Your task to perform on an android device: star an email in the gmail app Image 0: 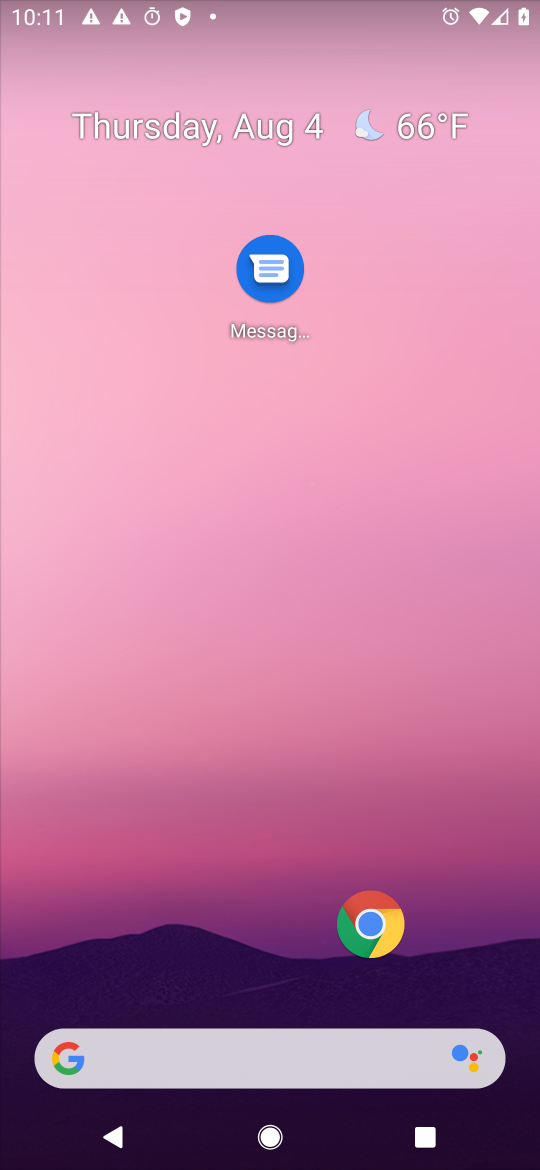
Step 0: drag from (313, 912) to (411, 50)
Your task to perform on an android device: star an email in the gmail app Image 1: 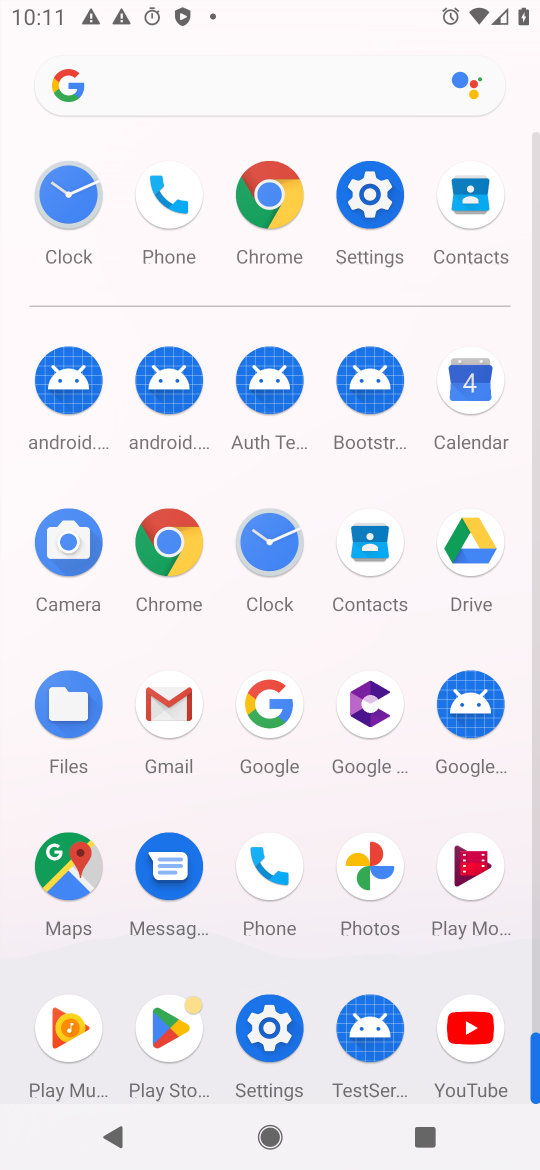
Step 1: click (181, 693)
Your task to perform on an android device: star an email in the gmail app Image 2: 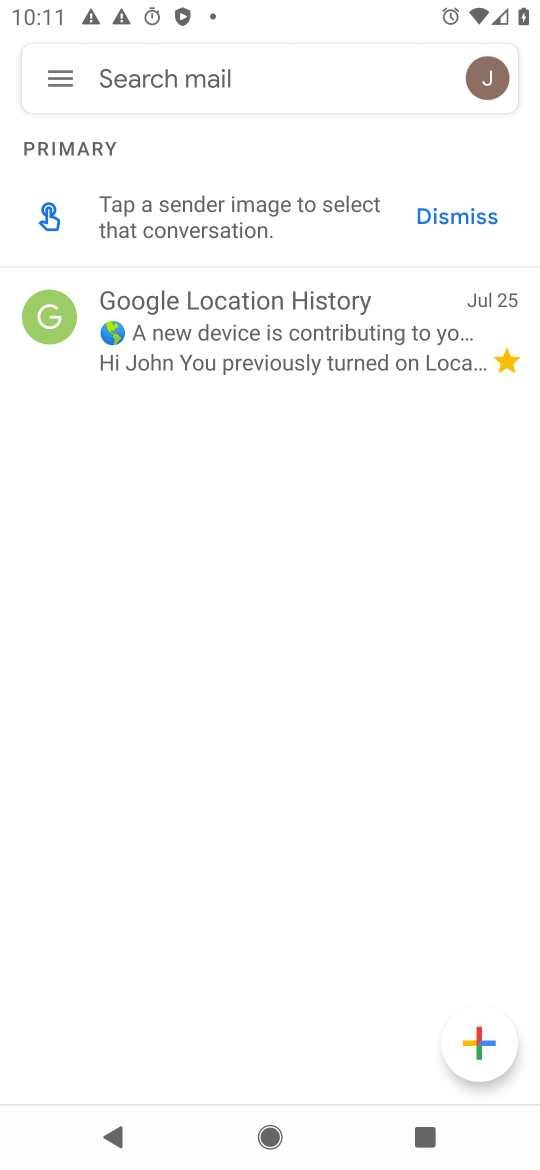
Step 2: drag from (236, 783) to (273, 457)
Your task to perform on an android device: star an email in the gmail app Image 3: 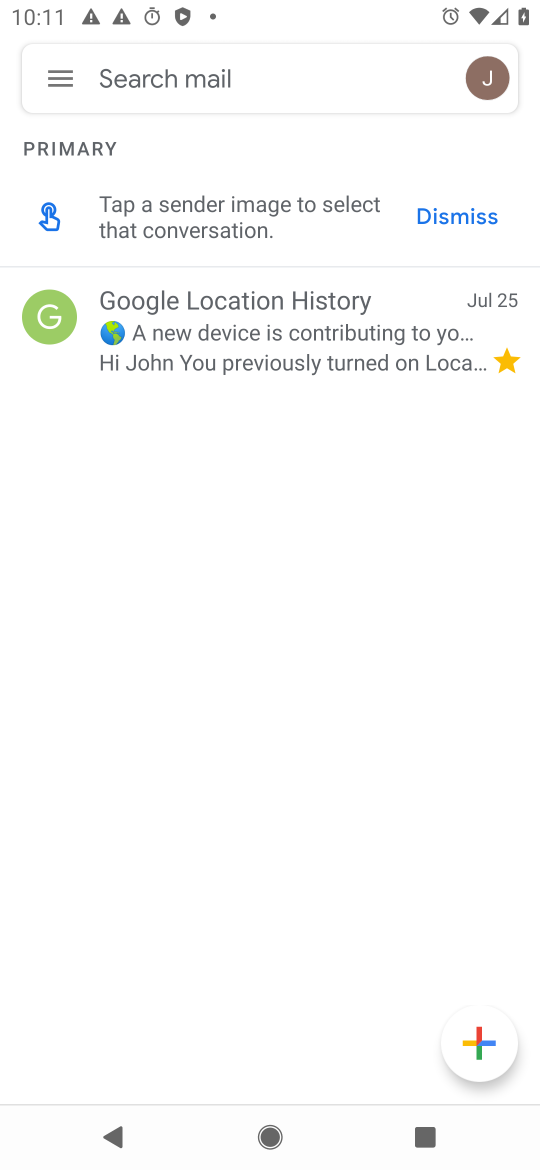
Step 3: press home button
Your task to perform on an android device: star an email in the gmail app Image 4: 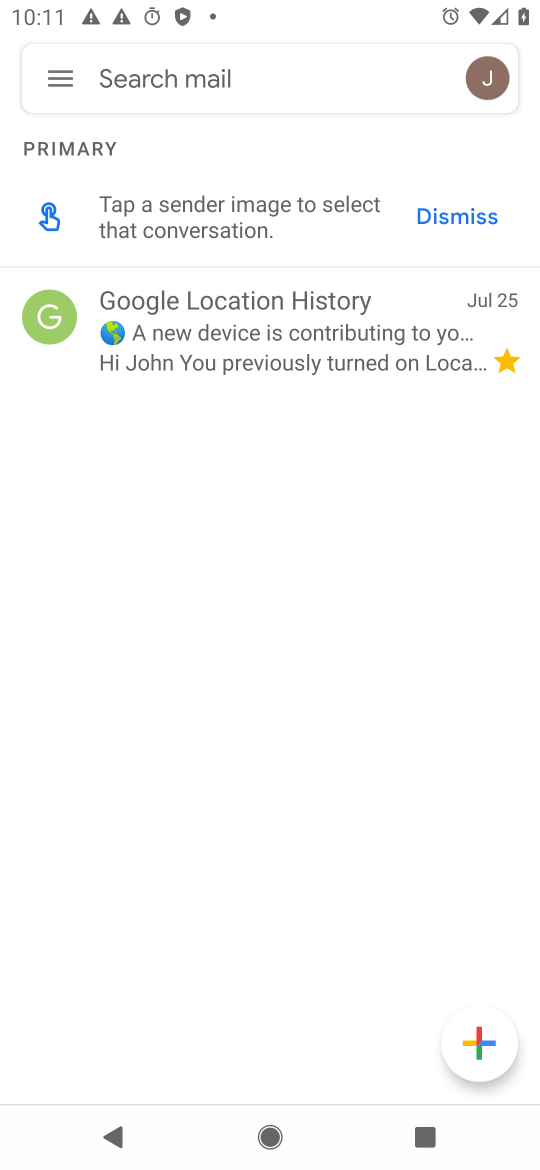
Step 4: press home button
Your task to perform on an android device: star an email in the gmail app Image 5: 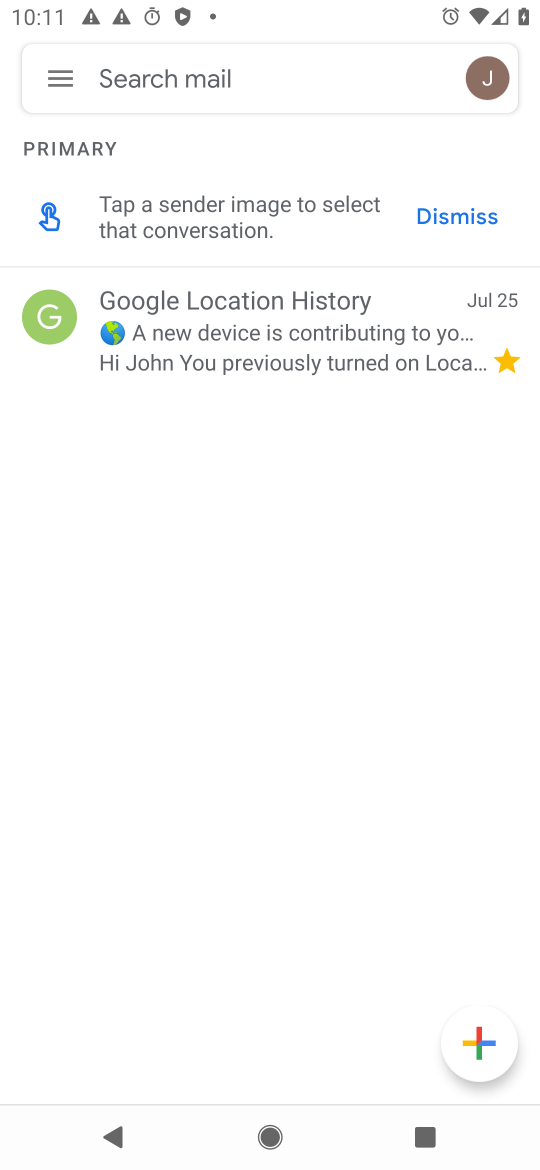
Step 5: click (275, 129)
Your task to perform on an android device: star an email in the gmail app Image 6: 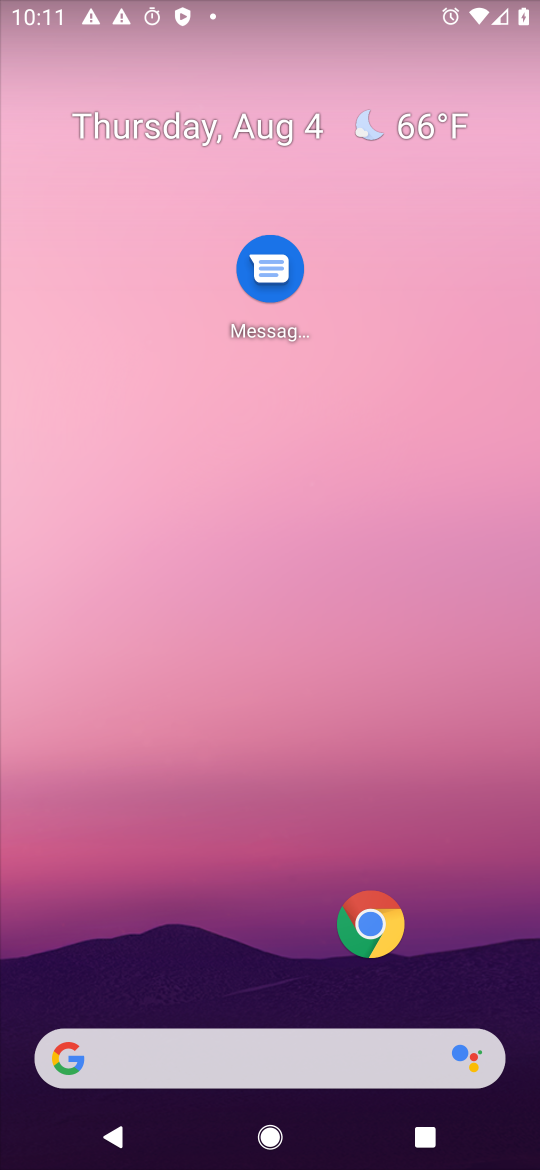
Step 6: drag from (252, 532) to (320, 173)
Your task to perform on an android device: star an email in the gmail app Image 7: 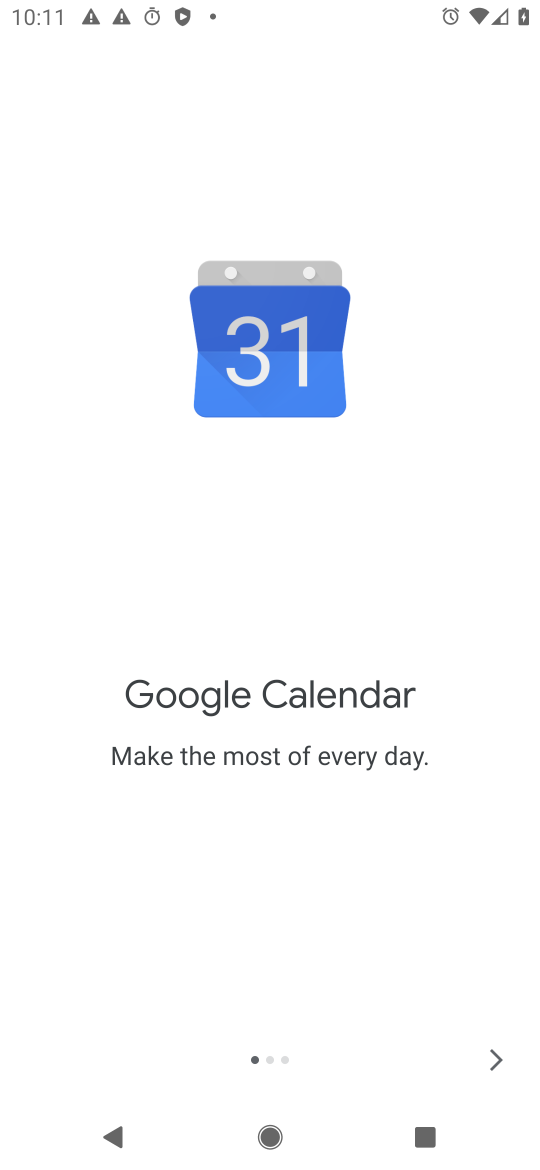
Step 7: press home button
Your task to perform on an android device: star an email in the gmail app Image 8: 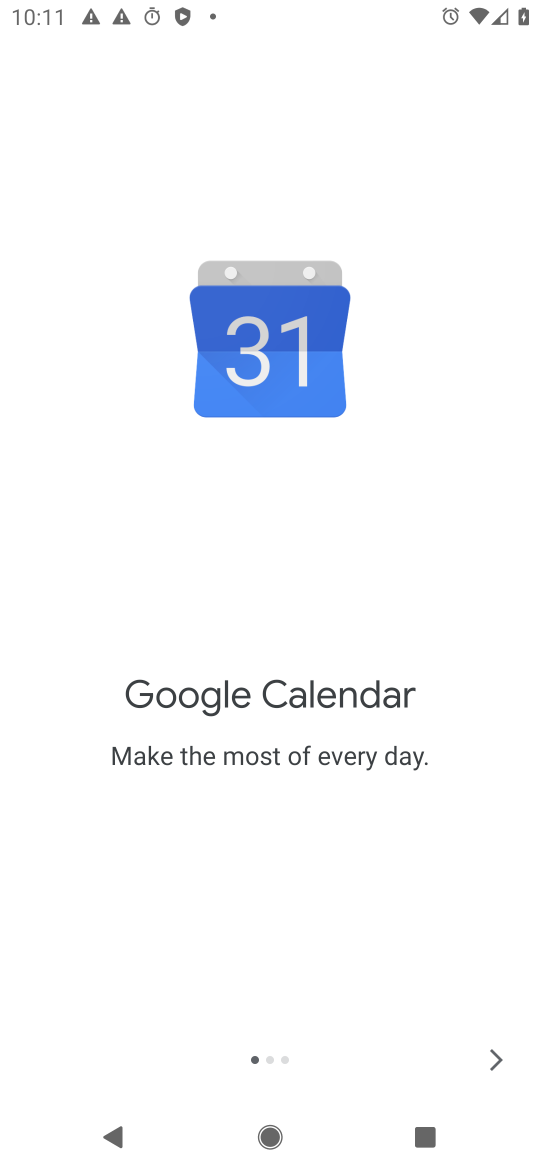
Step 8: drag from (194, 1022) to (366, 159)
Your task to perform on an android device: star an email in the gmail app Image 9: 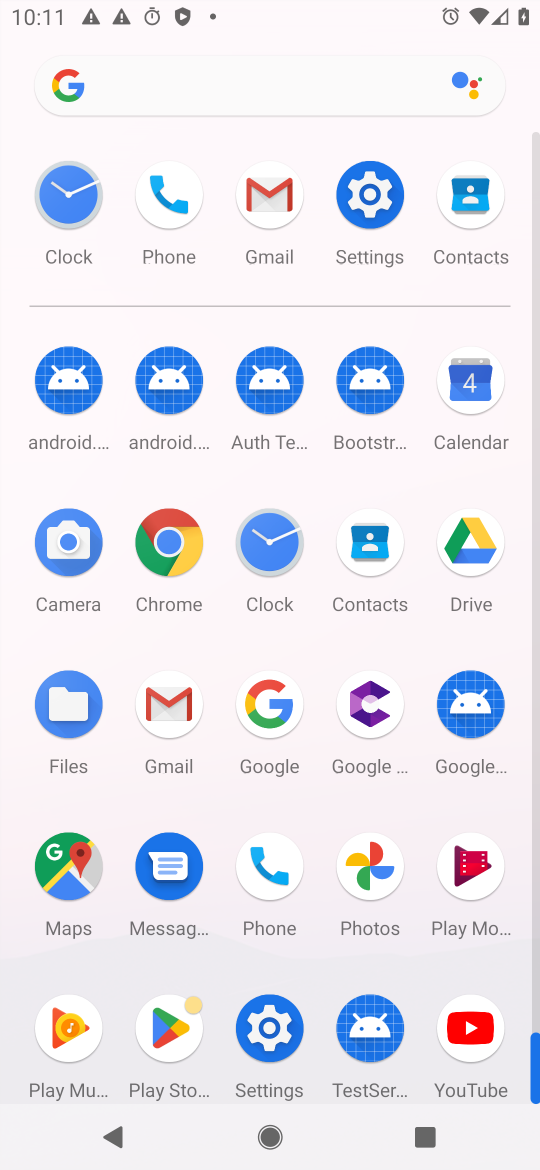
Step 9: click (172, 702)
Your task to perform on an android device: star an email in the gmail app Image 10: 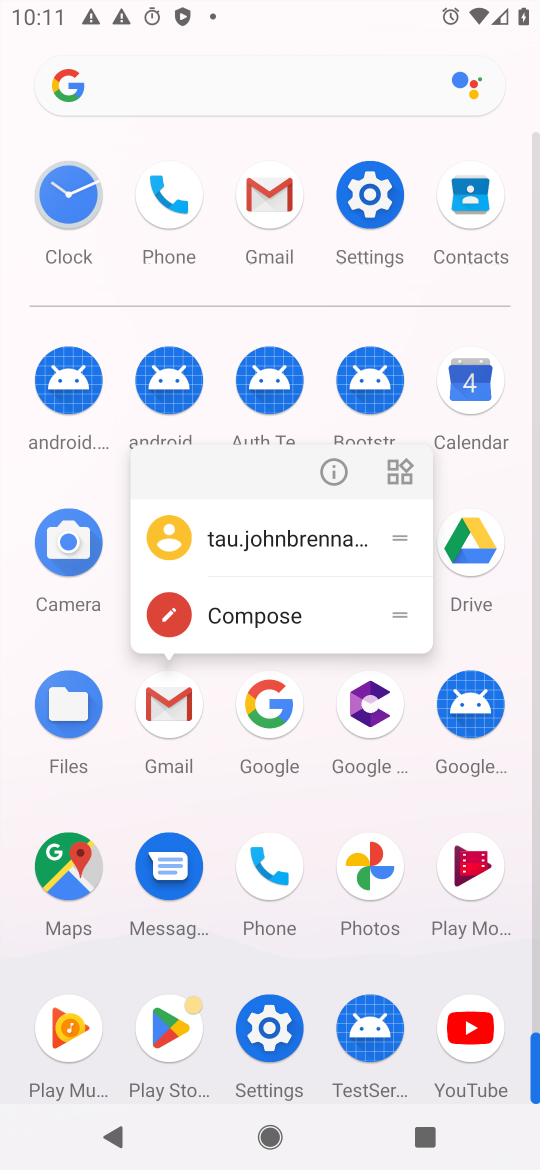
Step 10: click (328, 466)
Your task to perform on an android device: star an email in the gmail app Image 11: 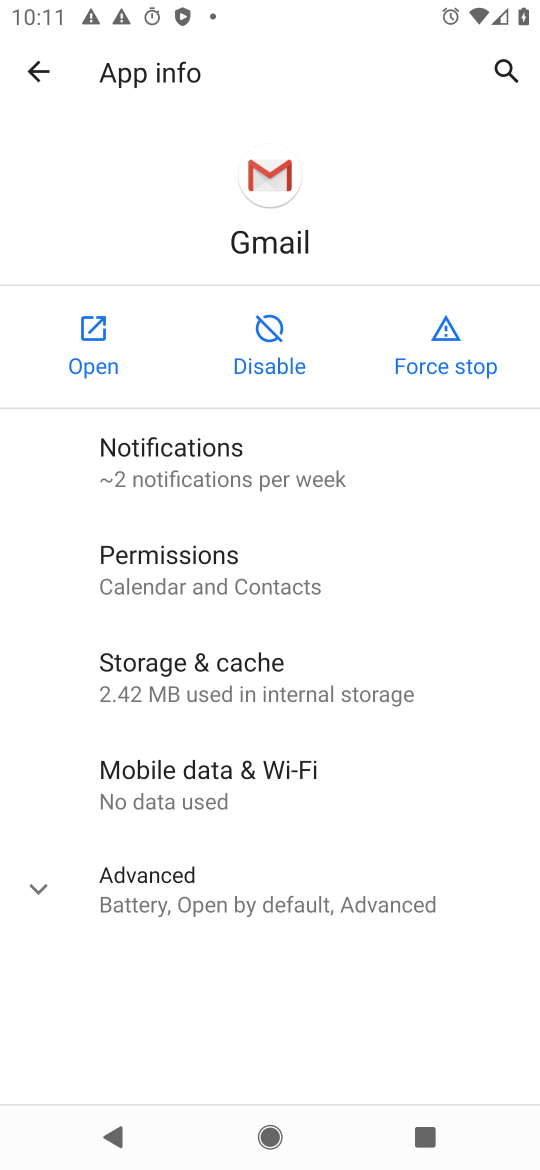
Step 11: click (85, 337)
Your task to perform on an android device: star an email in the gmail app Image 12: 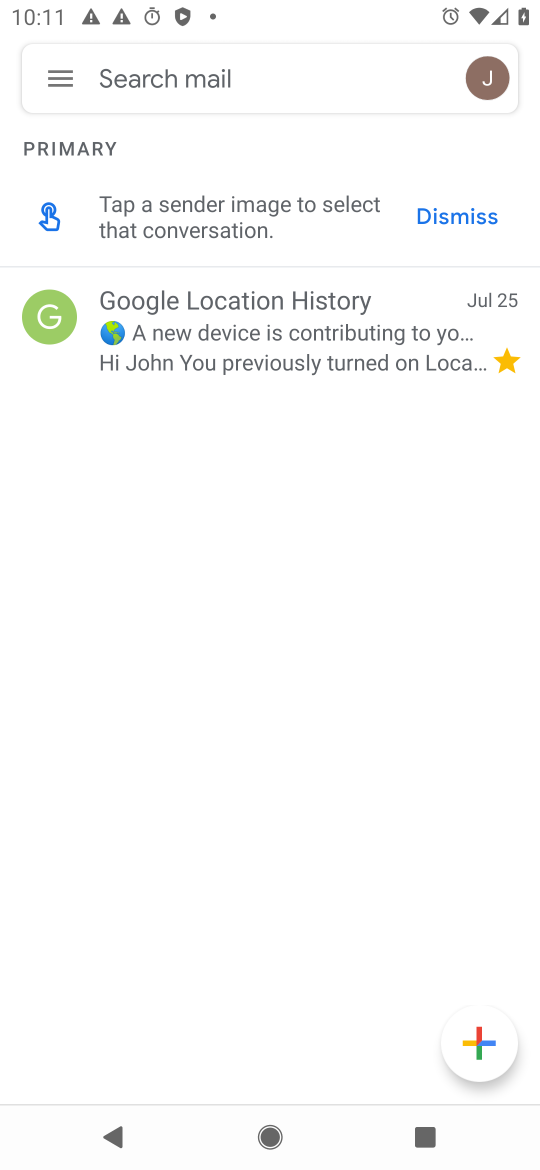
Step 12: click (67, 77)
Your task to perform on an android device: star an email in the gmail app Image 13: 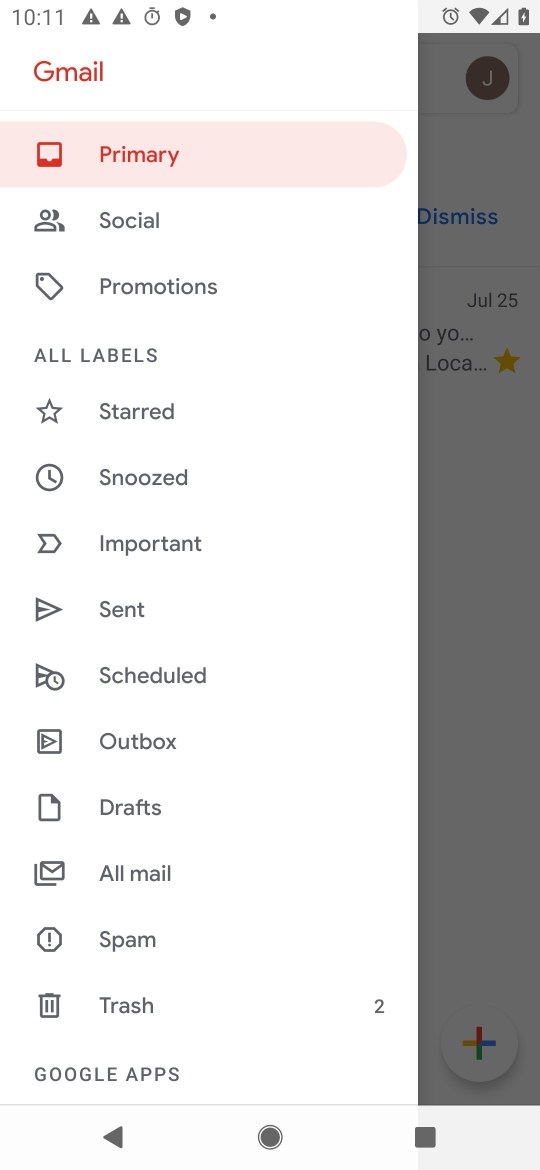
Step 13: click (434, 509)
Your task to perform on an android device: star an email in the gmail app Image 14: 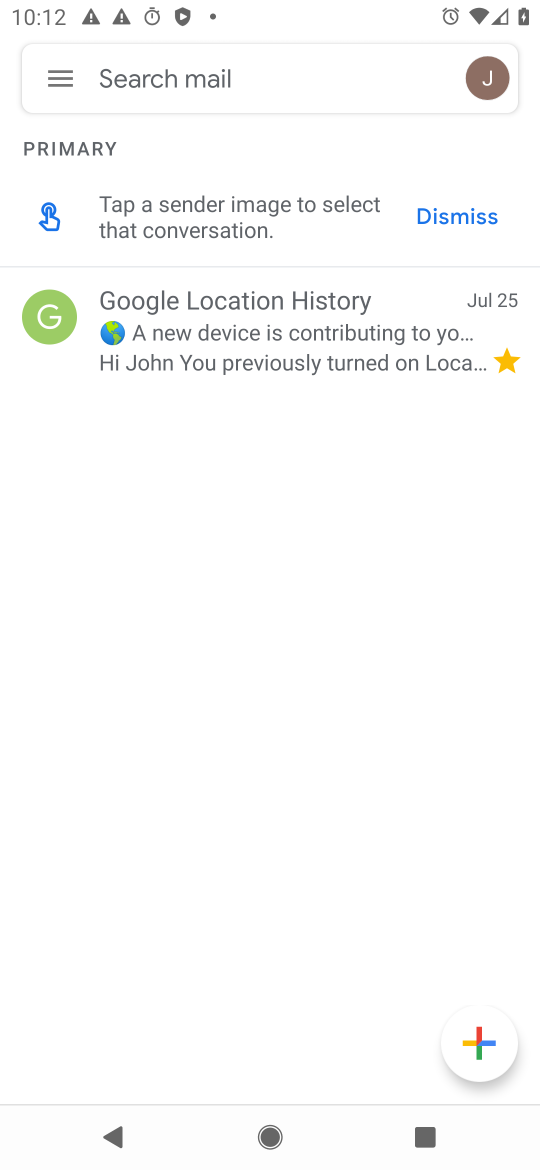
Step 14: click (211, 279)
Your task to perform on an android device: star an email in the gmail app Image 15: 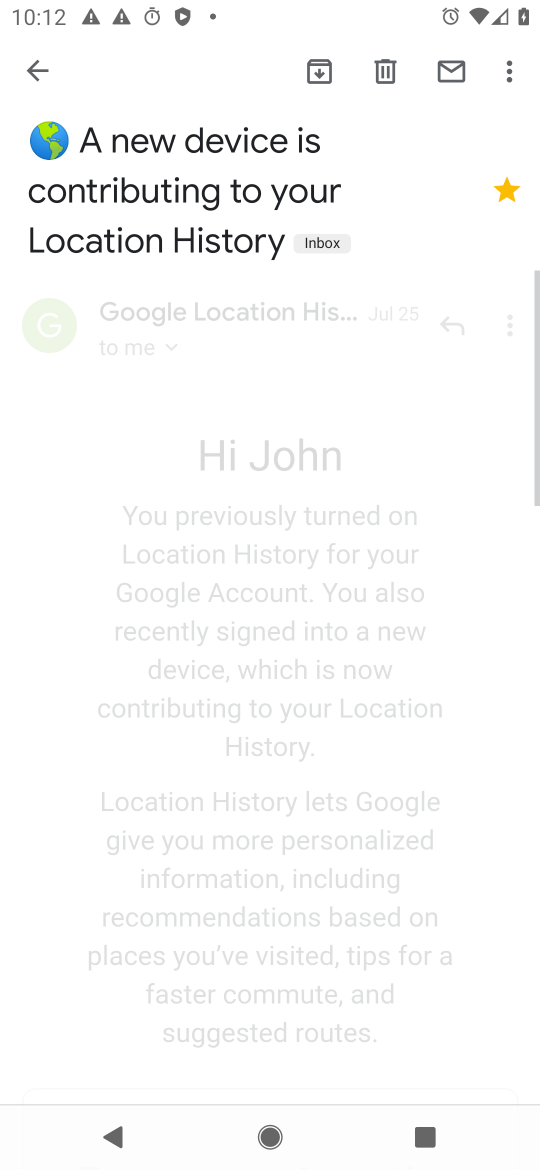
Step 15: task complete